Your task to perform on an android device: Add alienware area 51 to the cart on walmart.com Image 0: 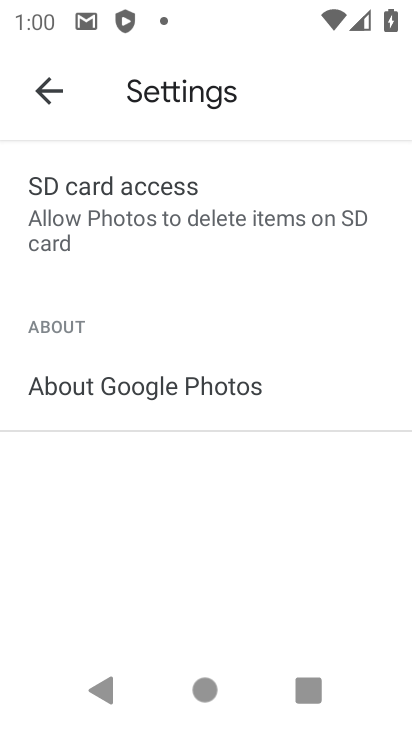
Step 0: press home button
Your task to perform on an android device: Add alienware area 51 to the cart on walmart.com Image 1: 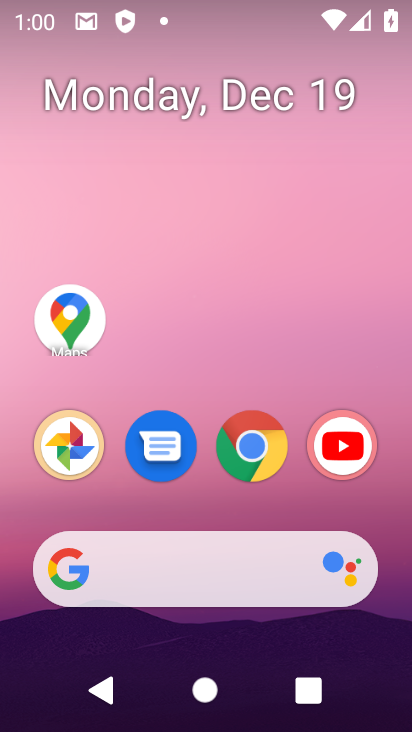
Step 1: click (267, 437)
Your task to perform on an android device: Add alienware area 51 to the cart on walmart.com Image 2: 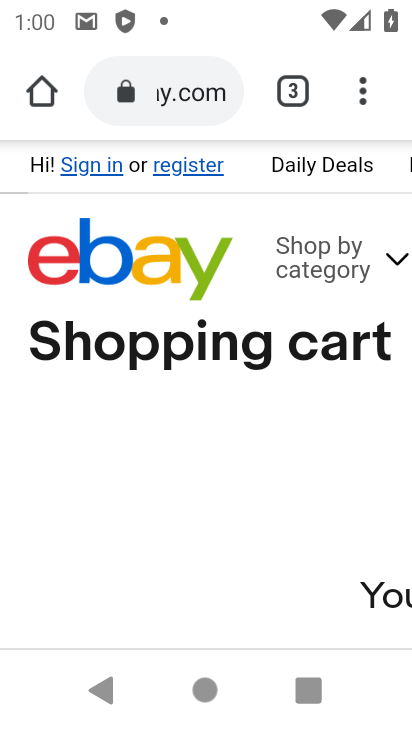
Step 2: click (197, 93)
Your task to perform on an android device: Add alienware area 51 to the cart on walmart.com Image 3: 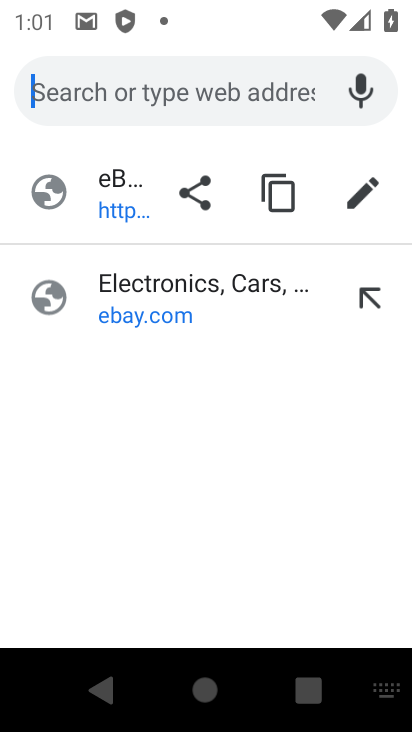
Step 3: type "walmart"
Your task to perform on an android device: Add alienware area 51 to the cart on walmart.com Image 4: 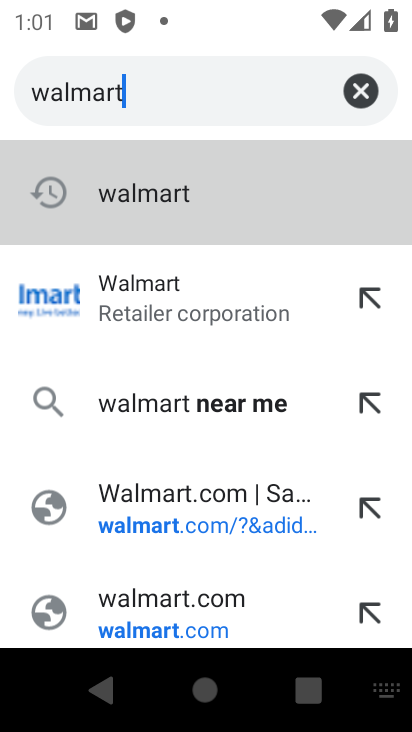
Step 4: click (289, 320)
Your task to perform on an android device: Add alienware area 51 to the cart on walmart.com Image 5: 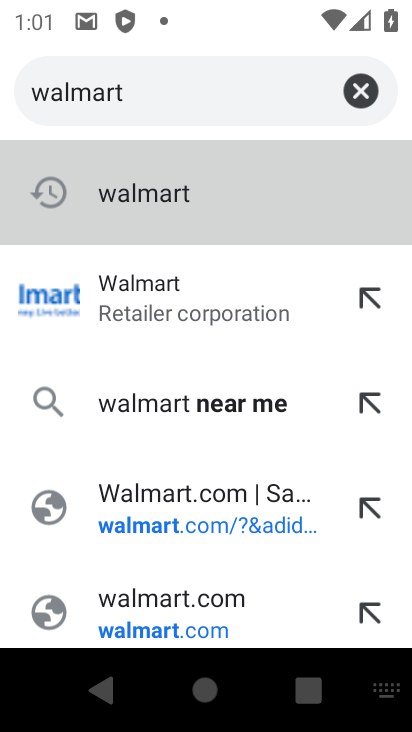
Step 5: click (289, 320)
Your task to perform on an android device: Add alienware area 51 to the cart on walmart.com Image 6: 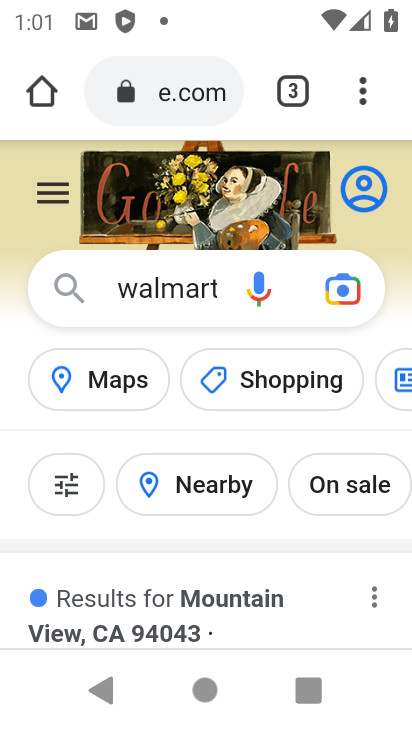
Step 6: drag from (247, 591) to (241, 376)
Your task to perform on an android device: Add alienware area 51 to the cart on walmart.com Image 7: 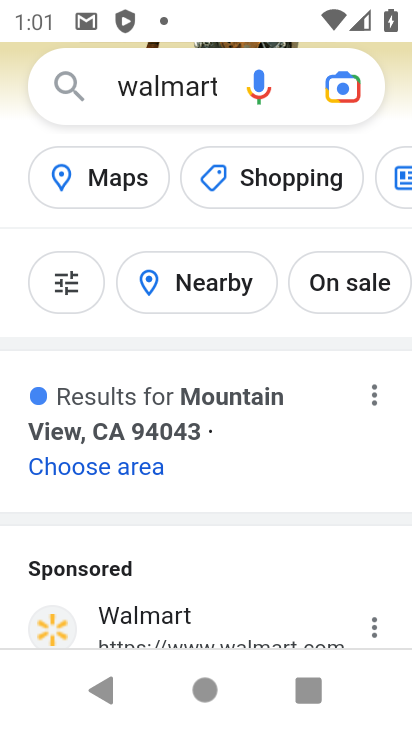
Step 7: click (244, 600)
Your task to perform on an android device: Add alienware area 51 to the cart on walmart.com Image 8: 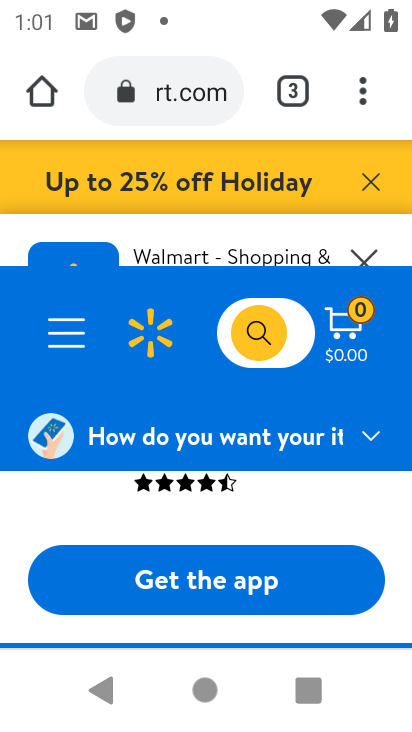
Step 8: click (357, 257)
Your task to perform on an android device: Add alienware area 51 to the cart on walmart.com Image 9: 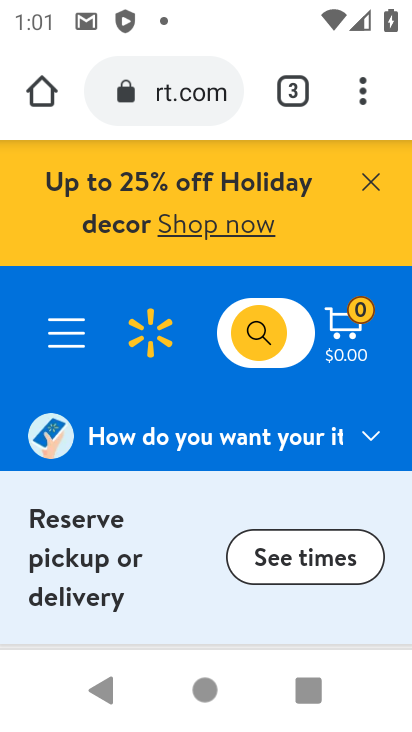
Step 9: click (385, 184)
Your task to perform on an android device: Add alienware area 51 to the cart on walmart.com Image 10: 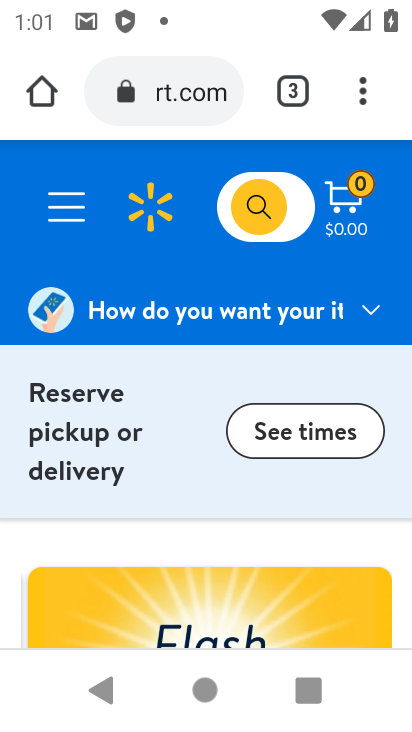
Step 10: click (267, 212)
Your task to perform on an android device: Add alienware area 51 to the cart on walmart.com Image 11: 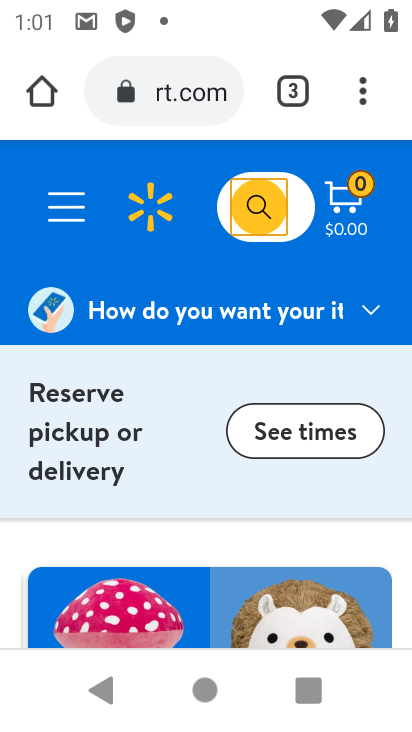
Step 11: click (288, 203)
Your task to perform on an android device: Add alienware area 51 to the cart on walmart.com Image 12: 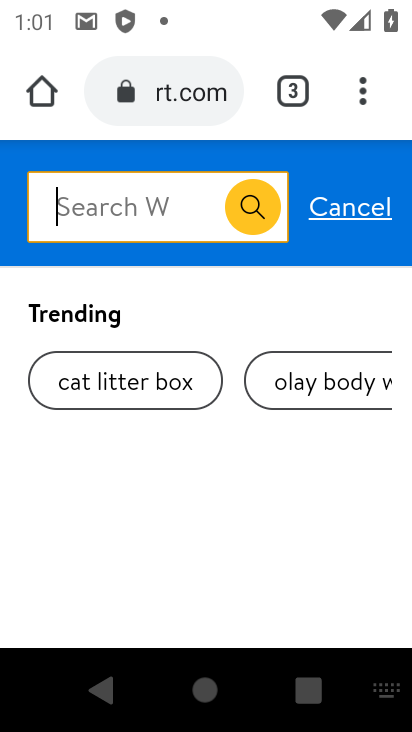
Step 12: type "alienware araea 51"
Your task to perform on an android device: Add alienware area 51 to the cart on walmart.com Image 13: 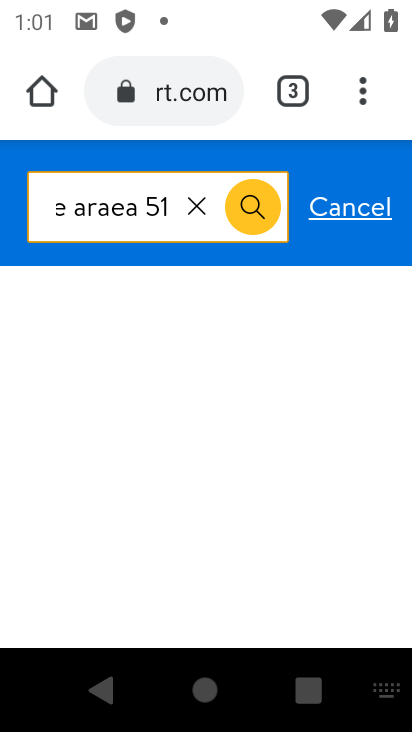
Step 13: click (260, 205)
Your task to perform on an android device: Add alienware area 51 to the cart on walmart.com Image 14: 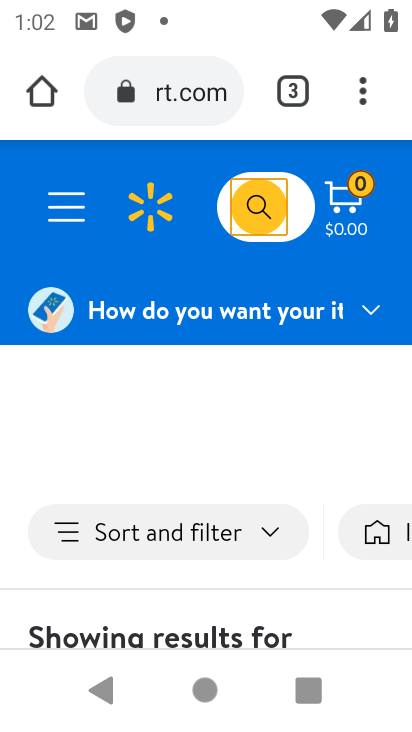
Step 14: drag from (287, 629) to (256, 297)
Your task to perform on an android device: Add alienware area 51 to the cart on walmart.com Image 15: 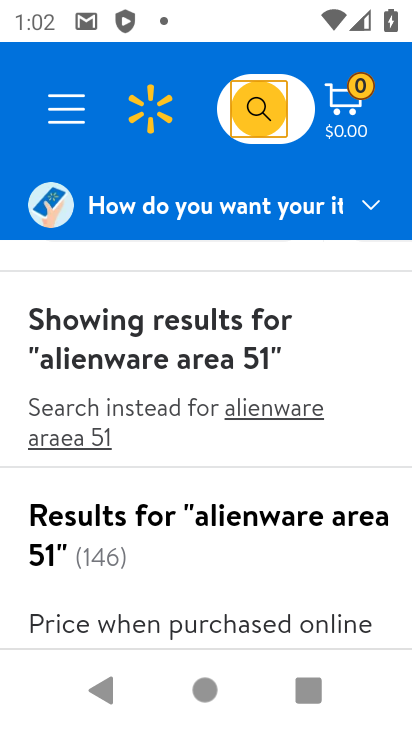
Step 15: click (277, 404)
Your task to perform on an android device: Add alienware area 51 to the cart on walmart.com Image 16: 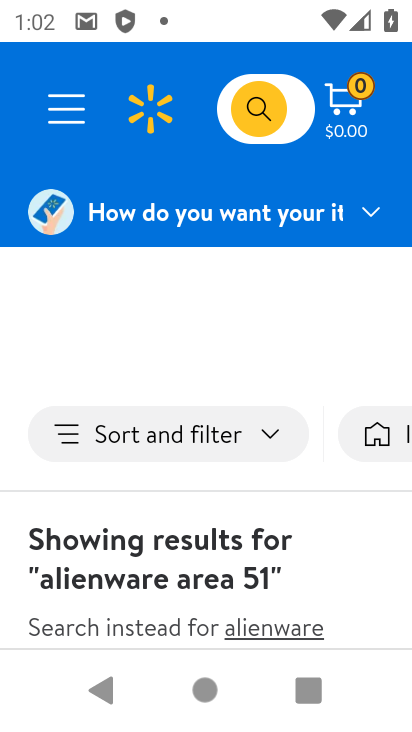
Step 16: drag from (278, 504) to (236, 261)
Your task to perform on an android device: Add alienware area 51 to the cart on walmart.com Image 17: 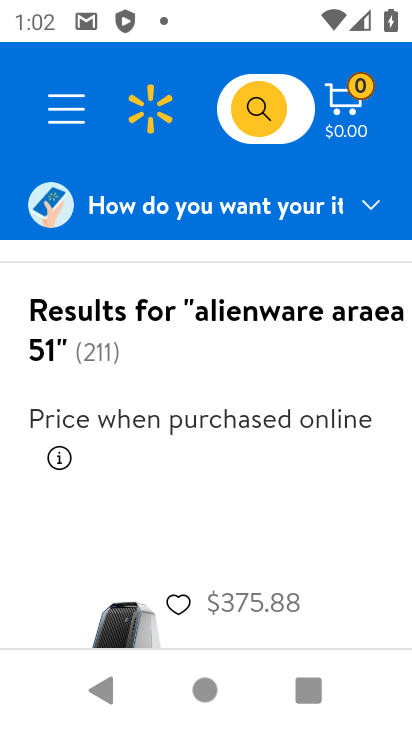
Step 17: click (217, 602)
Your task to perform on an android device: Add alienware area 51 to the cart on walmart.com Image 18: 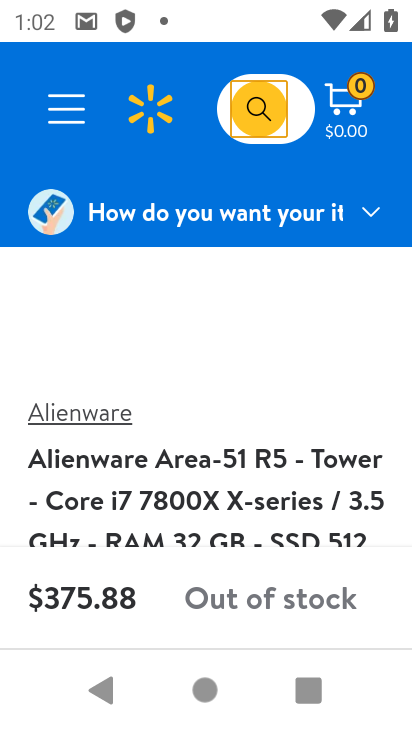
Step 18: task complete